Your task to perform on an android device: see tabs open on other devices in the chrome app Image 0: 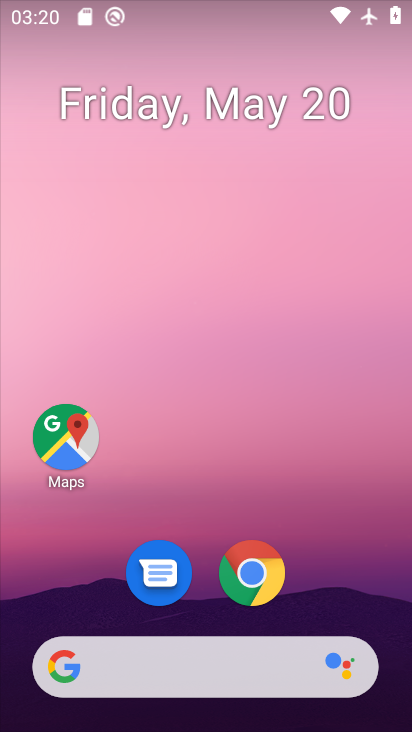
Step 0: click (246, 578)
Your task to perform on an android device: see tabs open on other devices in the chrome app Image 1: 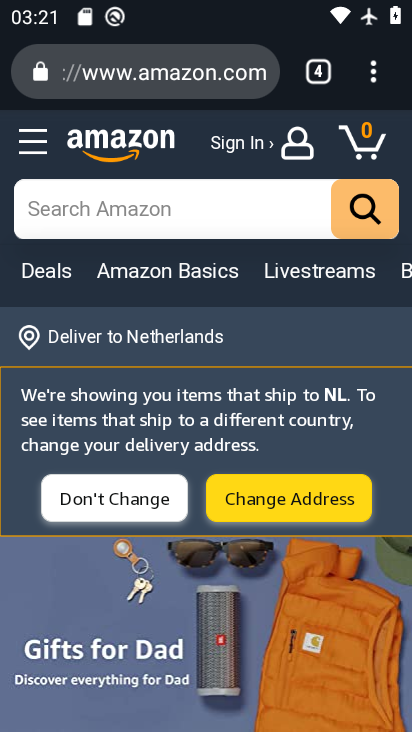
Step 1: click (370, 75)
Your task to perform on an android device: see tabs open on other devices in the chrome app Image 2: 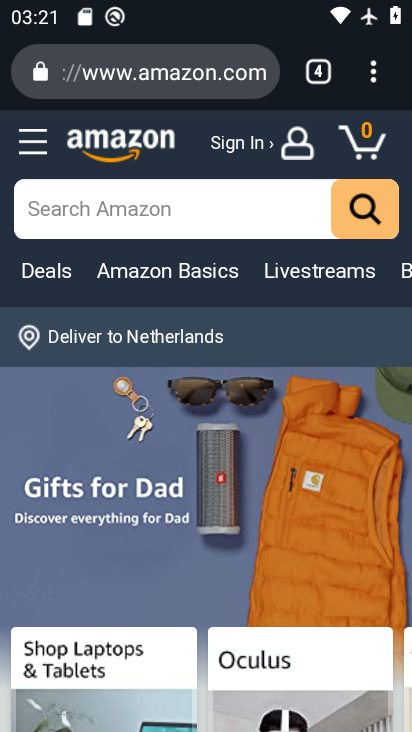
Step 2: task complete